Your task to perform on an android device: Search for Mexican restaurants on Maps Image 0: 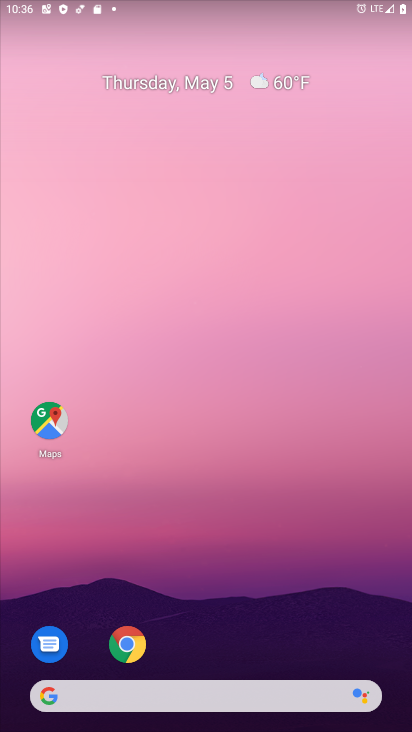
Step 0: click (45, 425)
Your task to perform on an android device: Search for Mexican restaurants on Maps Image 1: 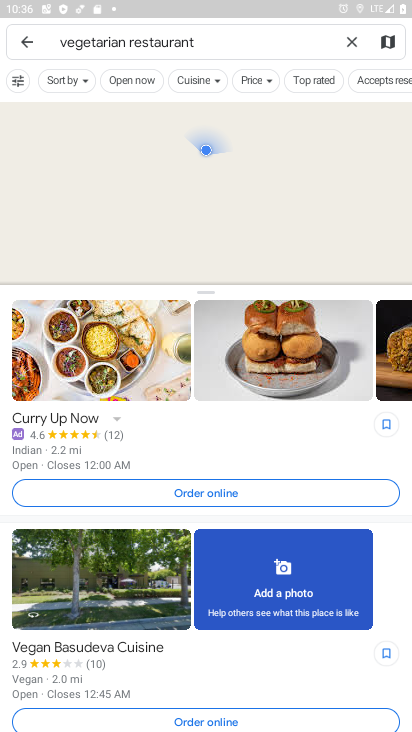
Step 1: click (353, 49)
Your task to perform on an android device: Search for Mexican restaurants on Maps Image 2: 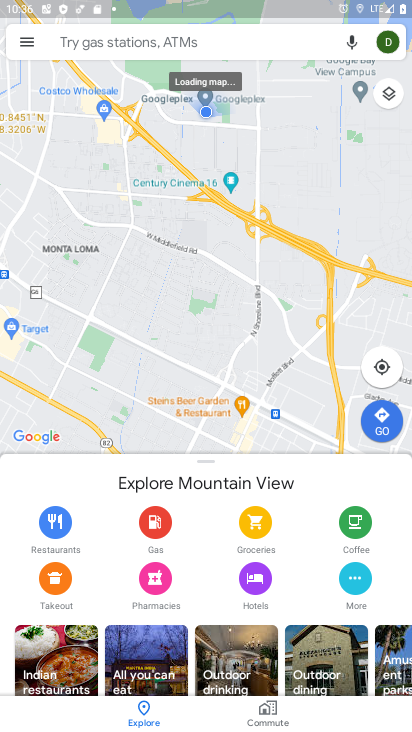
Step 2: click (207, 46)
Your task to perform on an android device: Search for Mexican restaurants on Maps Image 3: 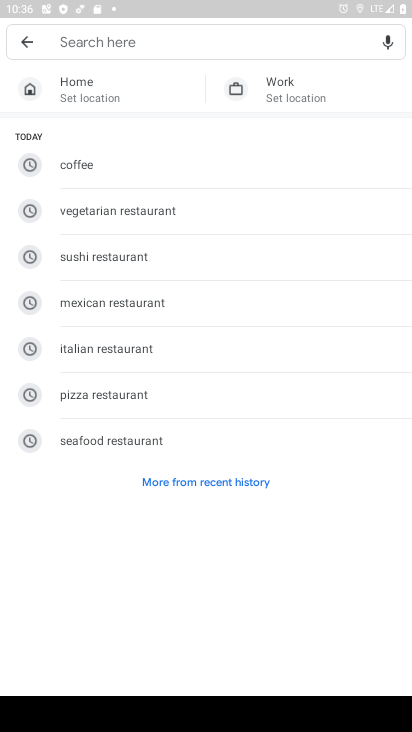
Step 3: click (140, 307)
Your task to perform on an android device: Search for Mexican restaurants on Maps Image 4: 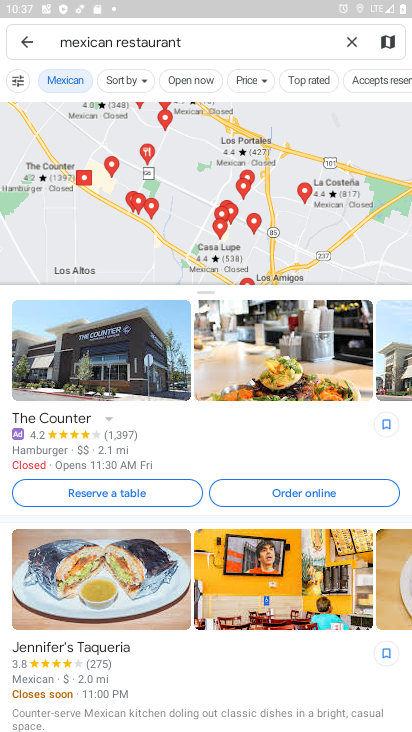
Step 4: task complete